Your task to perform on an android device: Go to CNN.com Image 0: 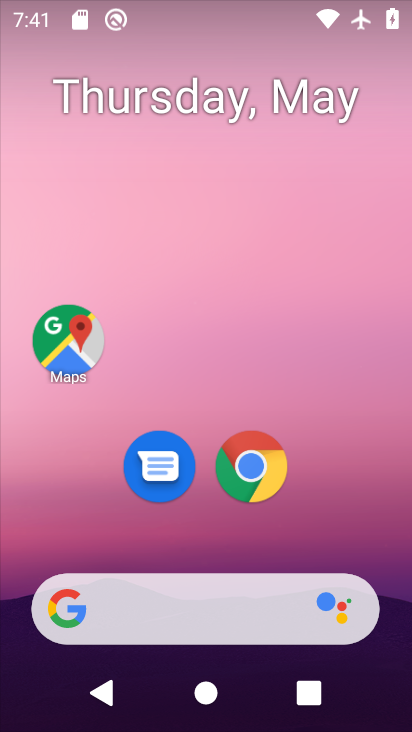
Step 0: click (251, 641)
Your task to perform on an android device: Go to CNN.com Image 1: 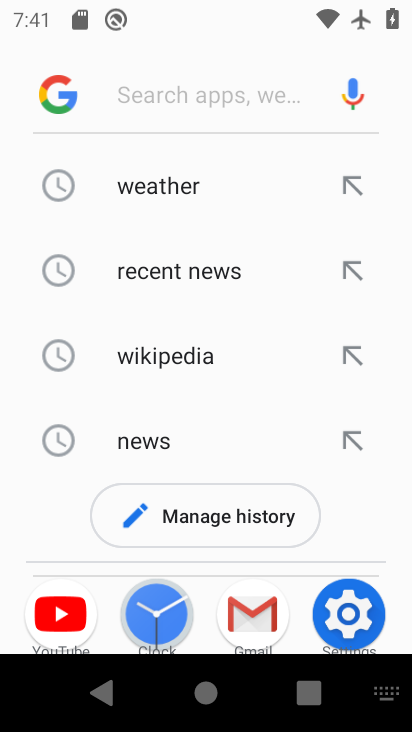
Step 1: type "cnn.com"
Your task to perform on an android device: Go to CNN.com Image 2: 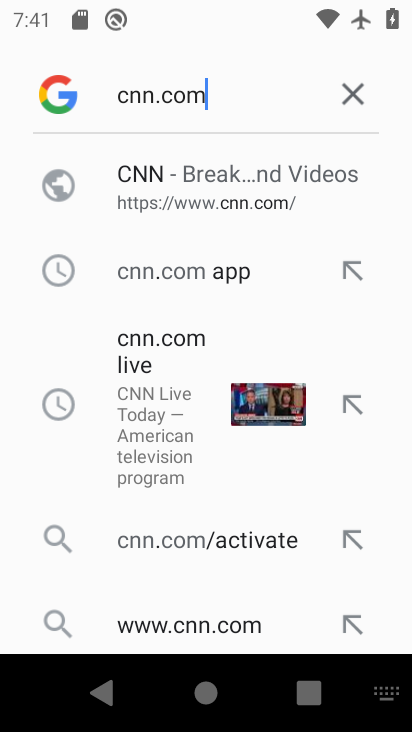
Step 2: click (213, 177)
Your task to perform on an android device: Go to CNN.com Image 3: 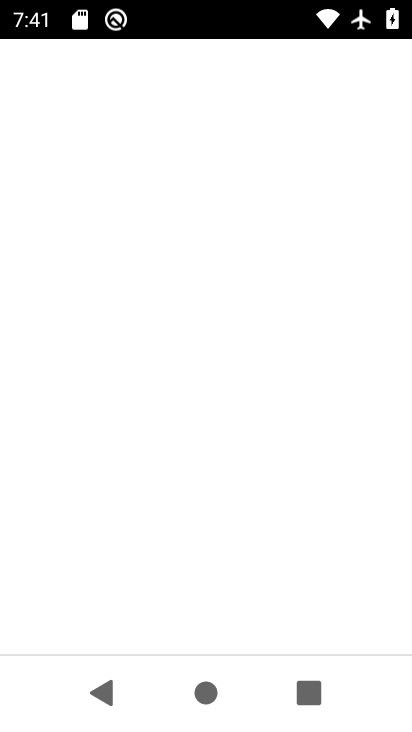
Step 3: task complete